Your task to perform on an android device: Open Youtube and go to "Your channel" Image 0: 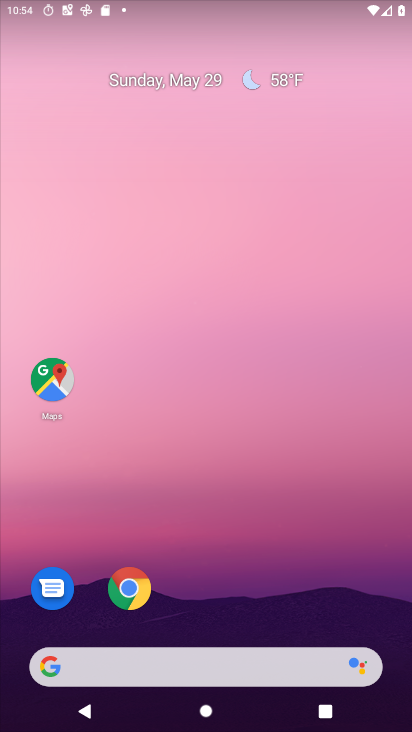
Step 0: drag from (255, 635) to (217, 114)
Your task to perform on an android device: Open Youtube and go to "Your channel" Image 1: 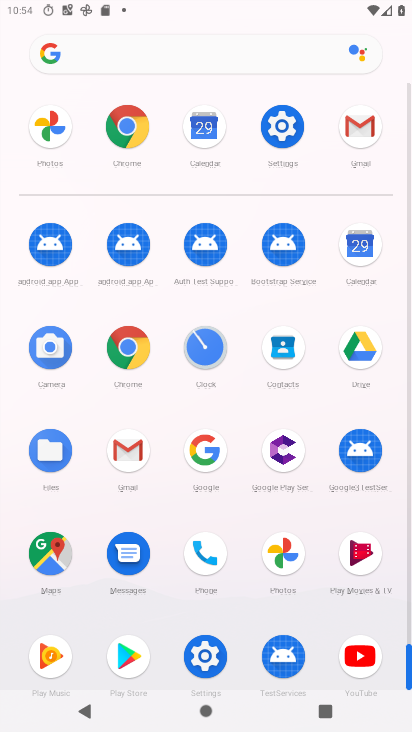
Step 1: click (365, 659)
Your task to perform on an android device: Open Youtube and go to "Your channel" Image 2: 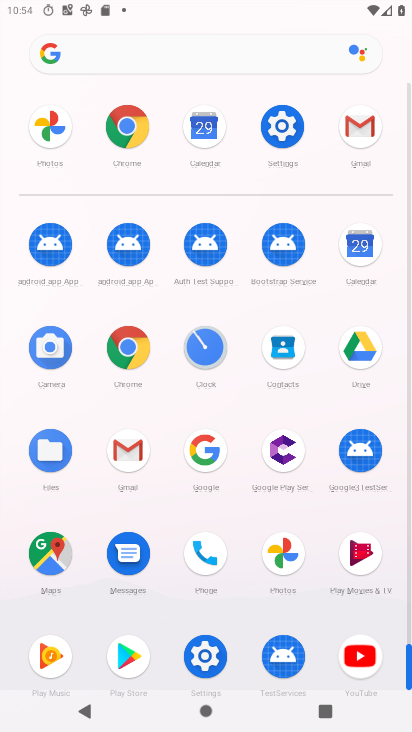
Step 2: click (364, 658)
Your task to perform on an android device: Open Youtube and go to "Your channel" Image 3: 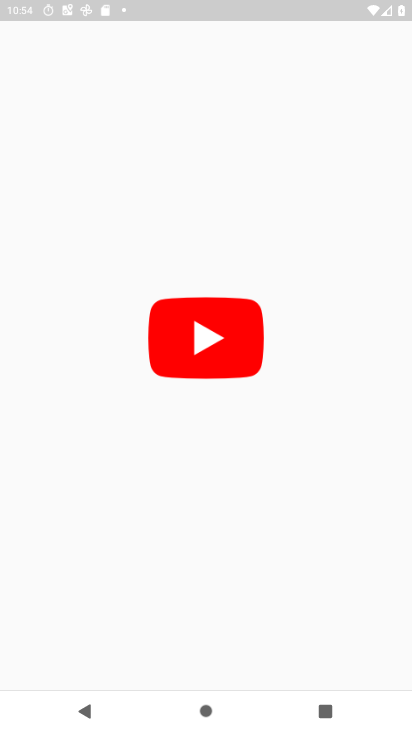
Step 3: click (336, 627)
Your task to perform on an android device: Open Youtube and go to "Your channel" Image 4: 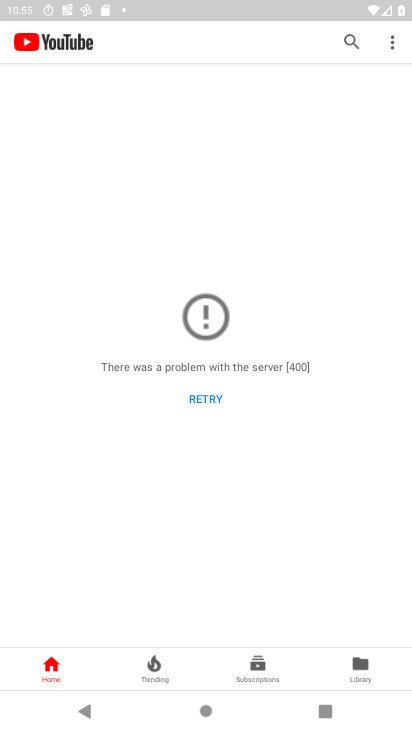
Step 4: task complete